Your task to perform on an android device: manage bookmarks in the chrome app Image 0: 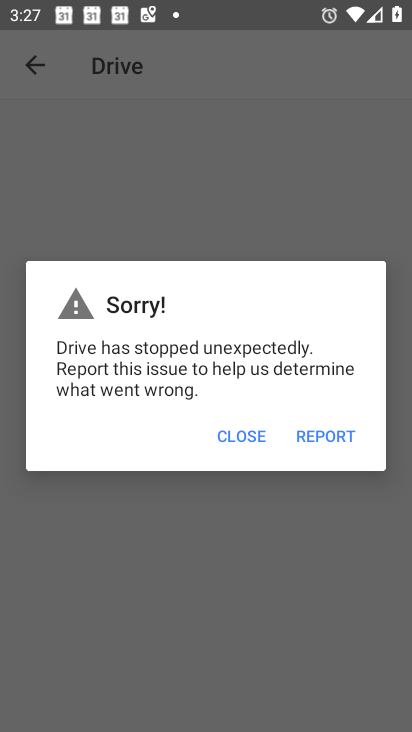
Step 0: click (267, 569)
Your task to perform on an android device: manage bookmarks in the chrome app Image 1: 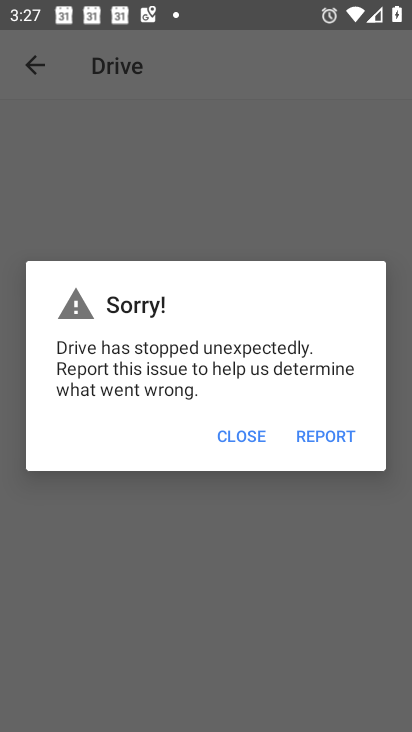
Step 1: press home button
Your task to perform on an android device: manage bookmarks in the chrome app Image 2: 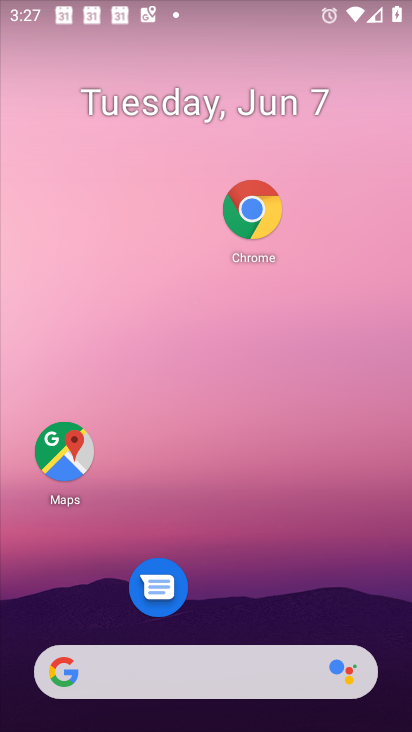
Step 2: drag from (228, 665) to (201, 110)
Your task to perform on an android device: manage bookmarks in the chrome app Image 3: 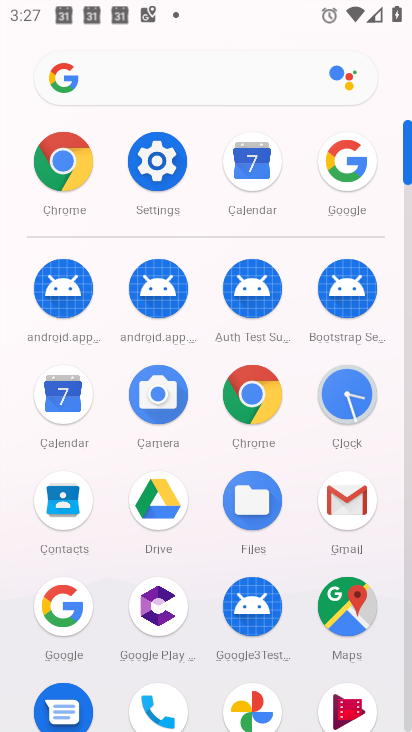
Step 3: click (257, 385)
Your task to perform on an android device: manage bookmarks in the chrome app Image 4: 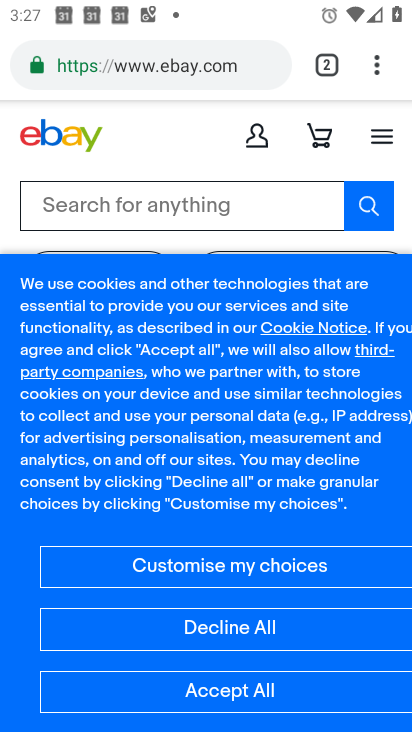
Step 4: click (376, 62)
Your task to perform on an android device: manage bookmarks in the chrome app Image 5: 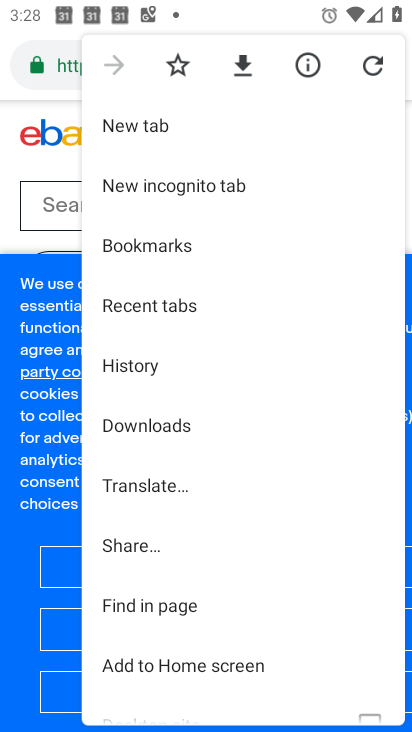
Step 5: click (185, 244)
Your task to perform on an android device: manage bookmarks in the chrome app Image 6: 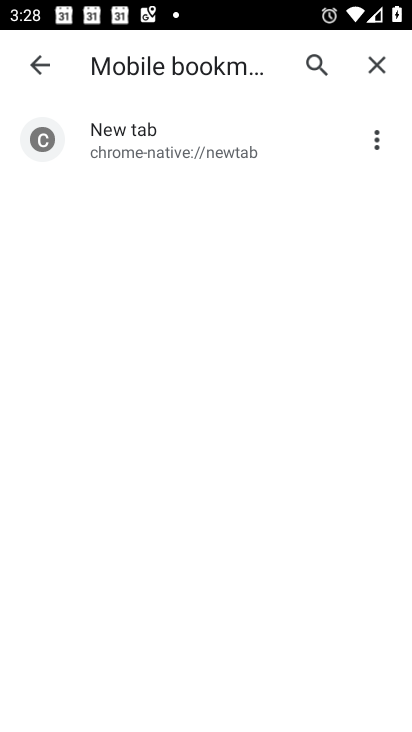
Step 6: click (203, 150)
Your task to perform on an android device: manage bookmarks in the chrome app Image 7: 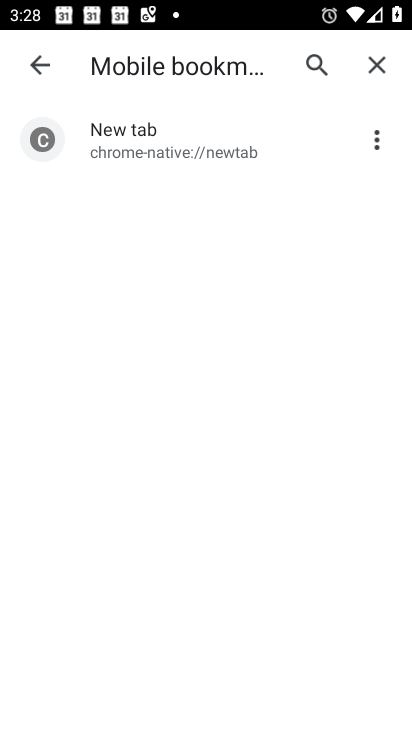
Step 7: task complete